Your task to perform on an android device: all mails in gmail Image 0: 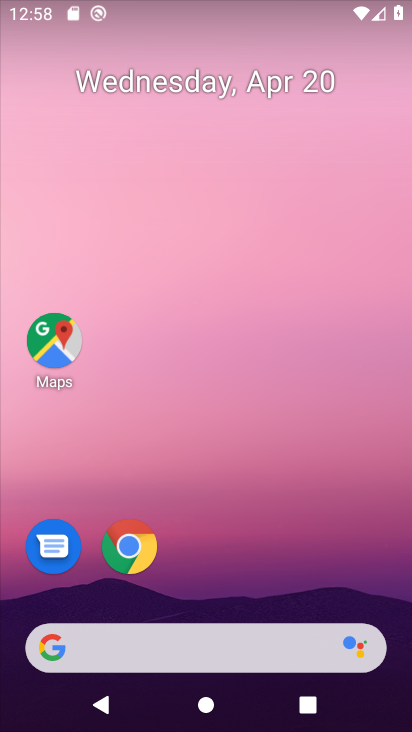
Step 0: drag from (217, 436) to (254, 245)
Your task to perform on an android device: all mails in gmail Image 1: 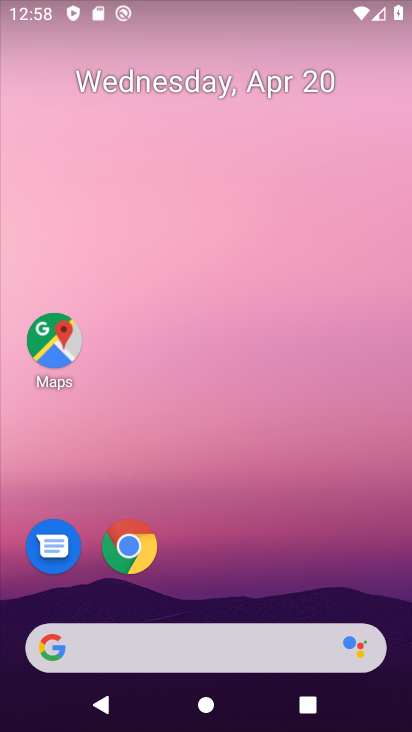
Step 1: drag from (219, 332) to (225, 218)
Your task to perform on an android device: all mails in gmail Image 2: 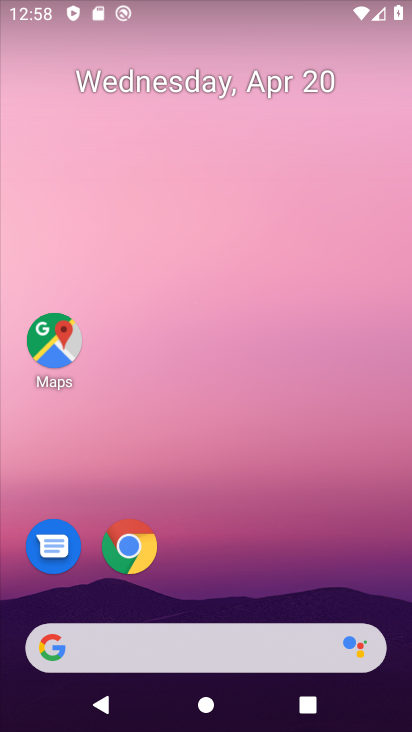
Step 2: drag from (237, 588) to (248, 42)
Your task to perform on an android device: all mails in gmail Image 3: 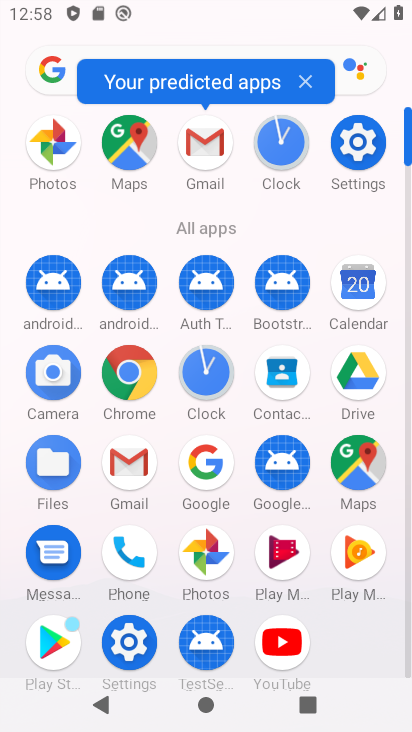
Step 3: click (210, 143)
Your task to perform on an android device: all mails in gmail Image 4: 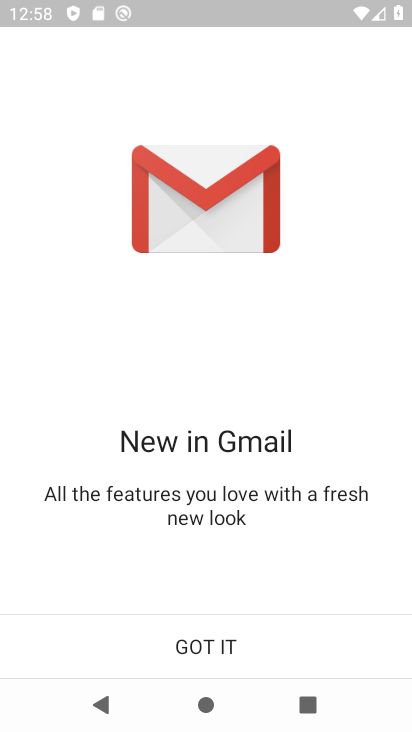
Step 4: click (215, 632)
Your task to perform on an android device: all mails in gmail Image 5: 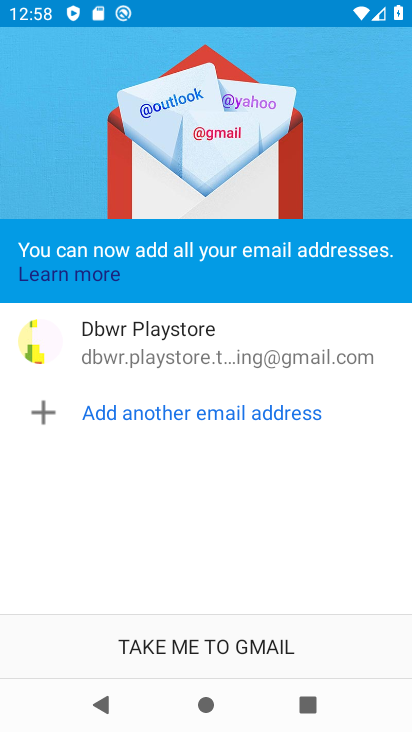
Step 5: click (215, 633)
Your task to perform on an android device: all mails in gmail Image 6: 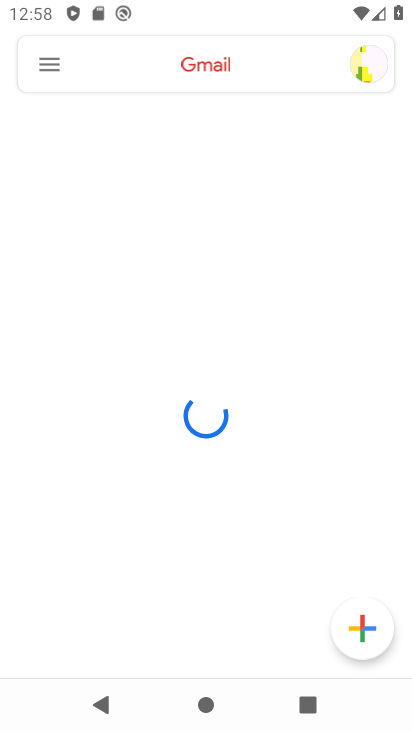
Step 6: click (48, 58)
Your task to perform on an android device: all mails in gmail Image 7: 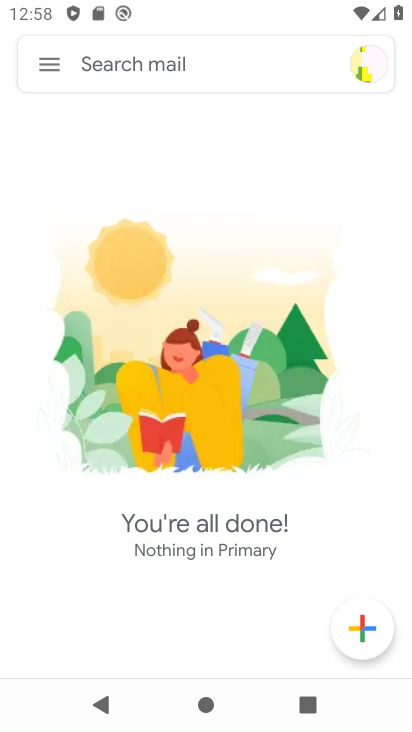
Step 7: click (42, 61)
Your task to perform on an android device: all mails in gmail Image 8: 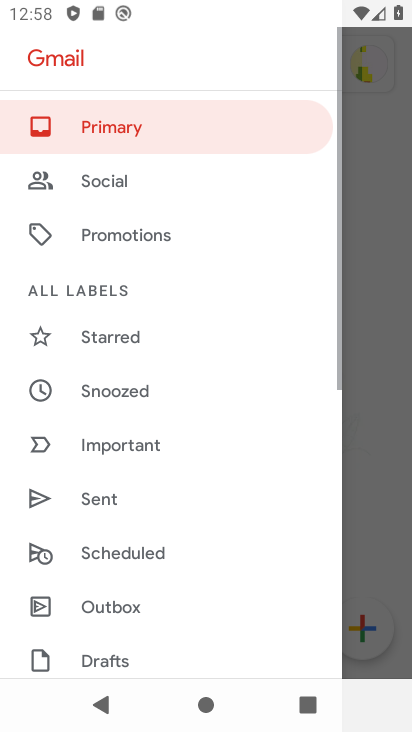
Step 8: drag from (200, 569) to (256, 113)
Your task to perform on an android device: all mails in gmail Image 9: 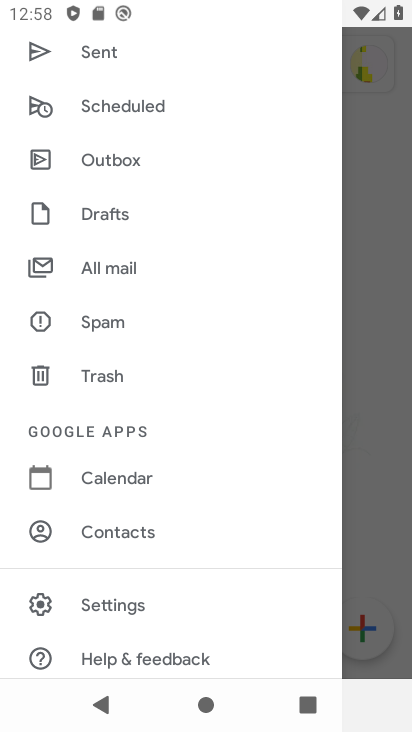
Step 9: click (124, 262)
Your task to perform on an android device: all mails in gmail Image 10: 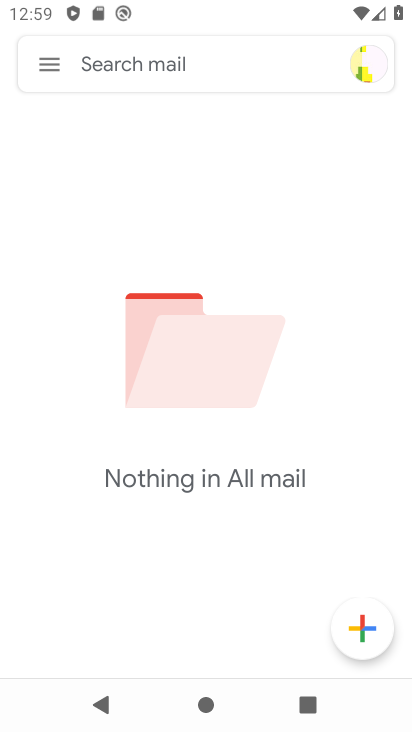
Step 10: task complete